Your task to perform on an android device: turn off location history Image 0: 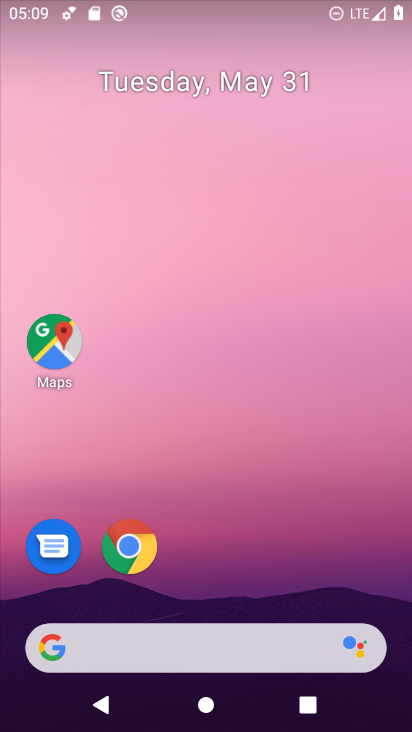
Step 0: drag from (238, 580) to (229, 179)
Your task to perform on an android device: turn off location history Image 1: 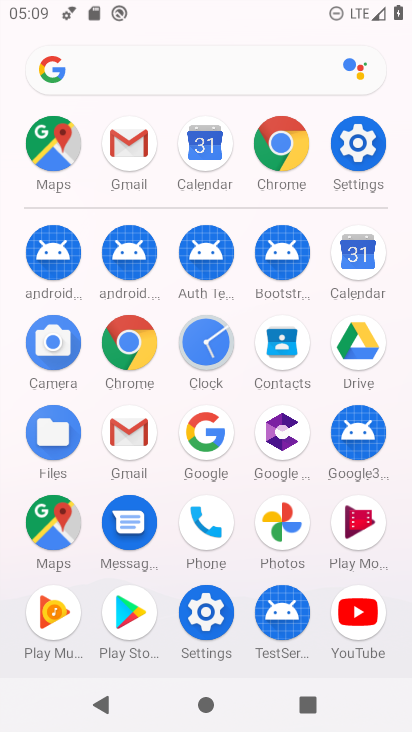
Step 1: click (358, 155)
Your task to perform on an android device: turn off location history Image 2: 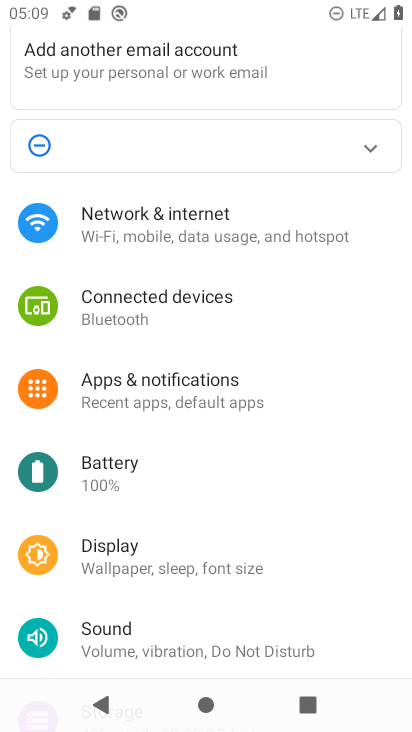
Step 2: drag from (141, 637) to (154, 415)
Your task to perform on an android device: turn off location history Image 3: 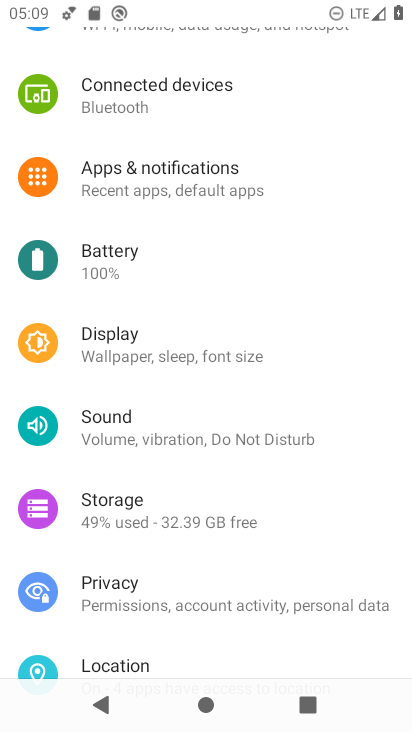
Step 3: click (119, 668)
Your task to perform on an android device: turn off location history Image 4: 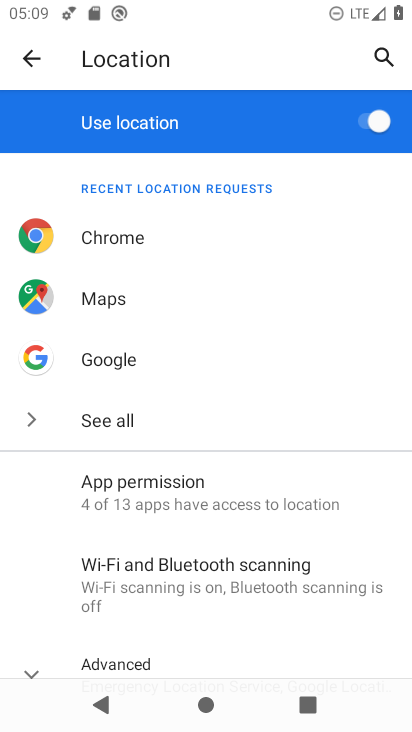
Step 4: drag from (109, 621) to (130, 423)
Your task to perform on an android device: turn off location history Image 5: 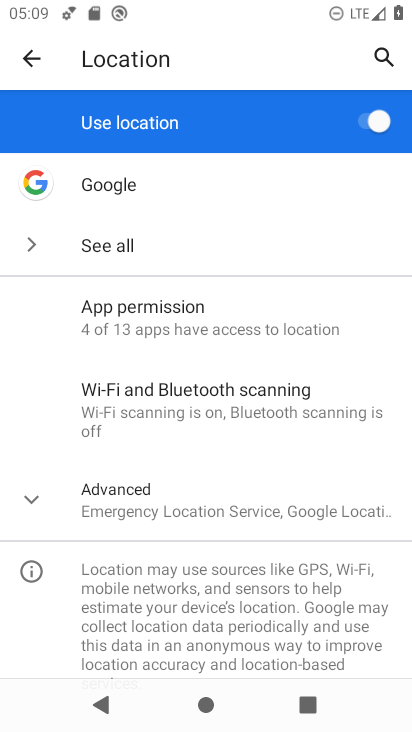
Step 5: click (104, 514)
Your task to perform on an android device: turn off location history Image 6: 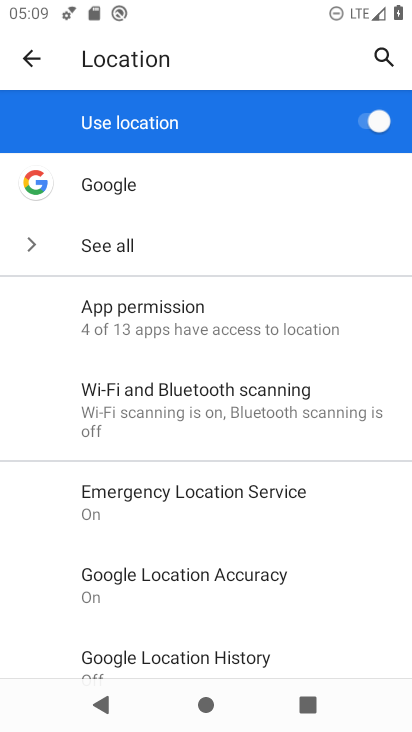
Step 6: click (209, 652)
Your task to perform on an android device: turn off location history Image 7: 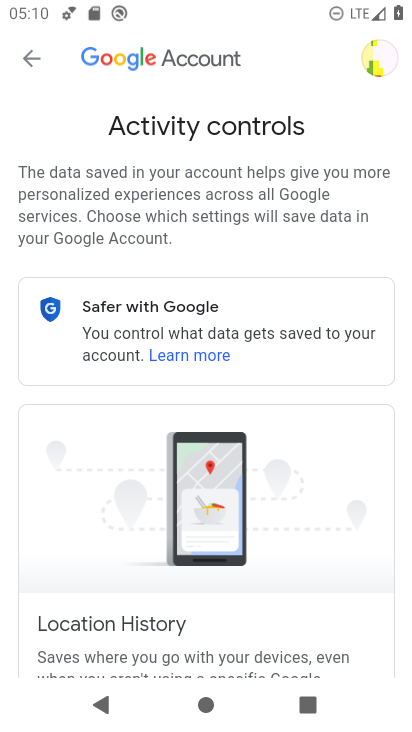
Step 7: drag from (216, 433) to (215, 205)
Your task to perform on an android device: turn off location history Image 8: 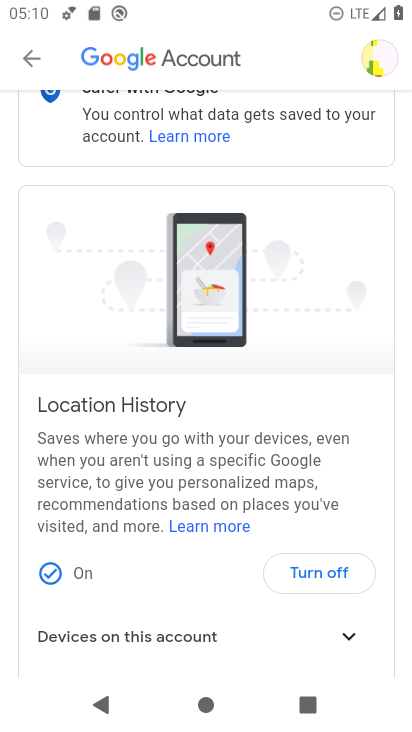
Step 8: click (313, 586)
Your task to perform on an android device: turn off location history Image 9: 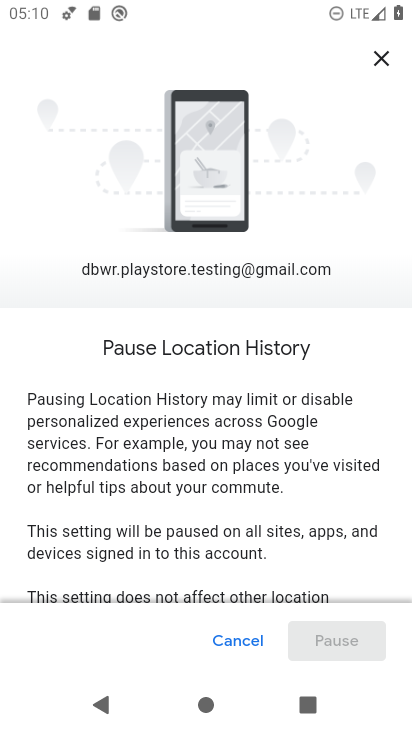
Step 9: drag from (180, 559) to (194, 161)
Your task to perform on an android device: turn off location history Image 10: 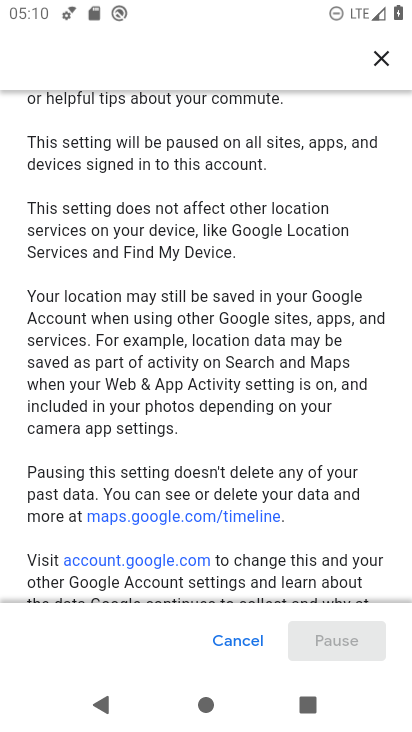
Step 10: drag from (183, 506) to (209, 198)
Your task to perform on an android device: turn off location history Image 11: 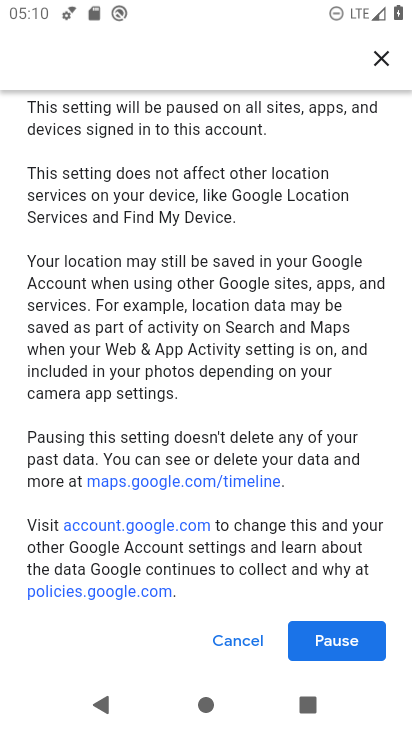
Step 11: drag from (195, 531) to (191, 255)
Your task to perform on an android device: turn off location history Image 12: 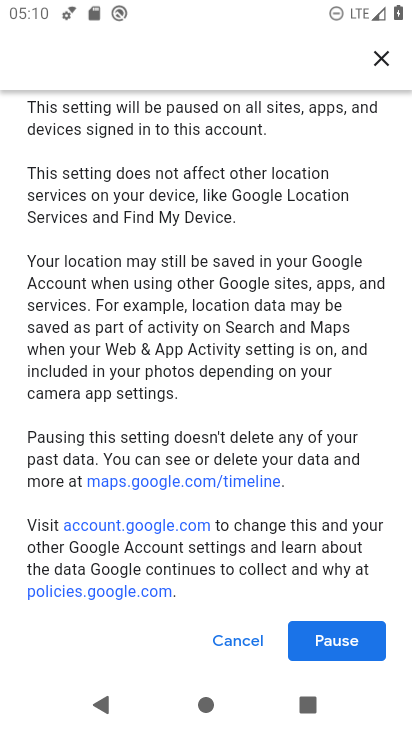
Step 12: drag from (236, 542) to (252, 302)
Your task to perform on an android device: turn off location history Image 13: 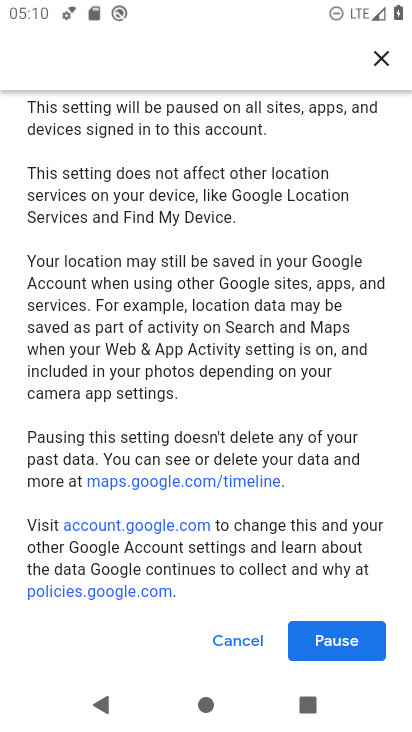
Step 13: click (348, 643)
Your task to perform on an android device: turn off location history Image 14: 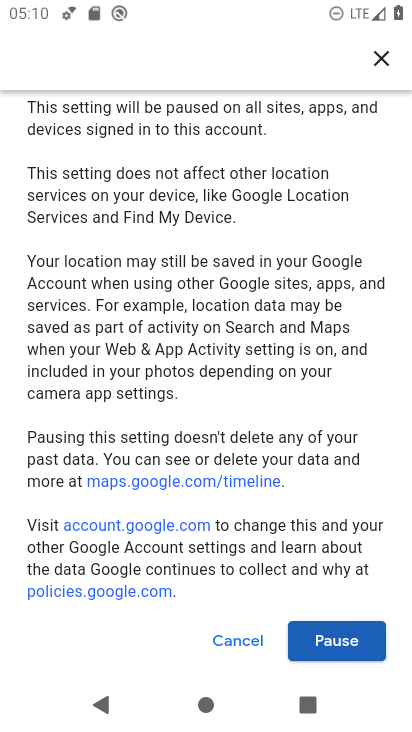
Step 14: click (347, 637)
Your task to perform on an android device: turn off location history Image 15: 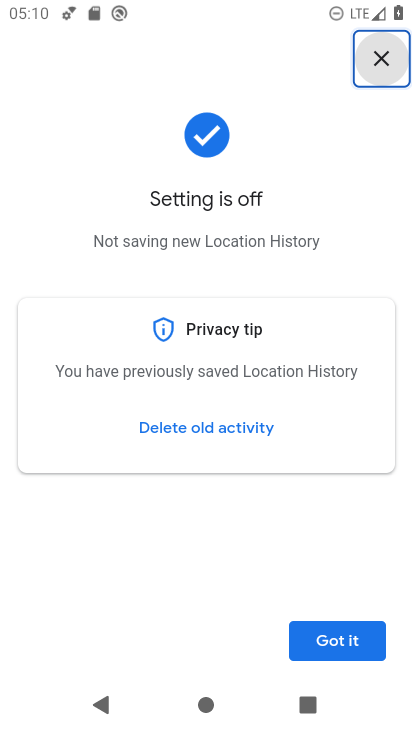
Step 15: click (347, 636)
Your task to perform on an android device: turn off location history Image 16: 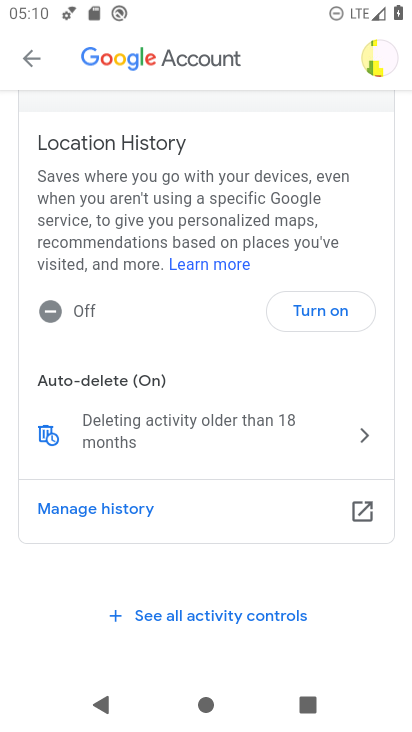
Step 16: task complete